Your task to perform on an android device: open chrome privacy settings Image 0: 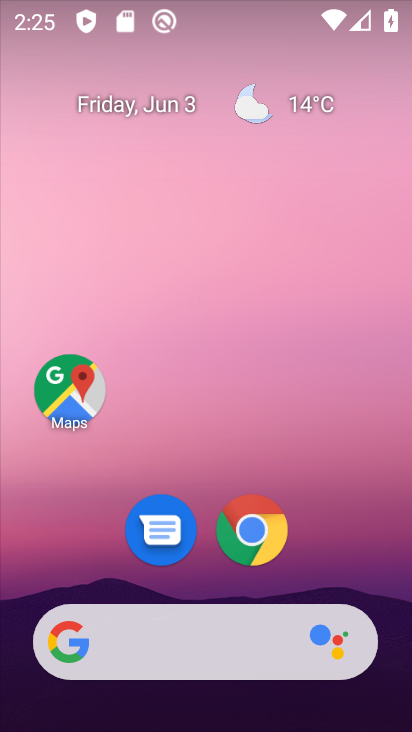
Step 0: click (240, 556)
Your task to perform on an android device: open chrome privacy settings Image 1: 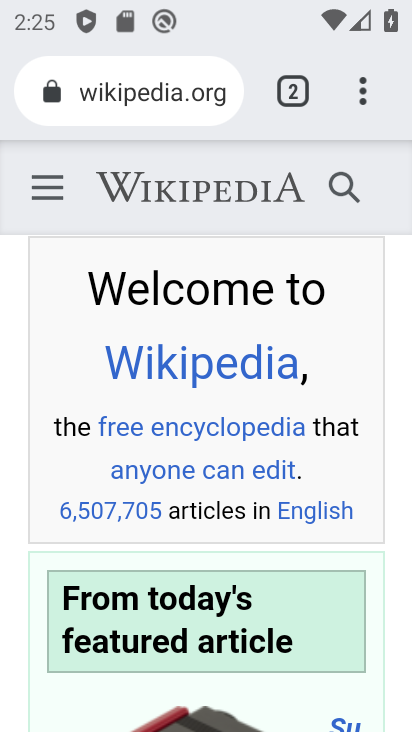
Step 1: drag from (379, 87) to (153, 582)
Your task to perform on an android device: open chrome privacy settings Image 2: 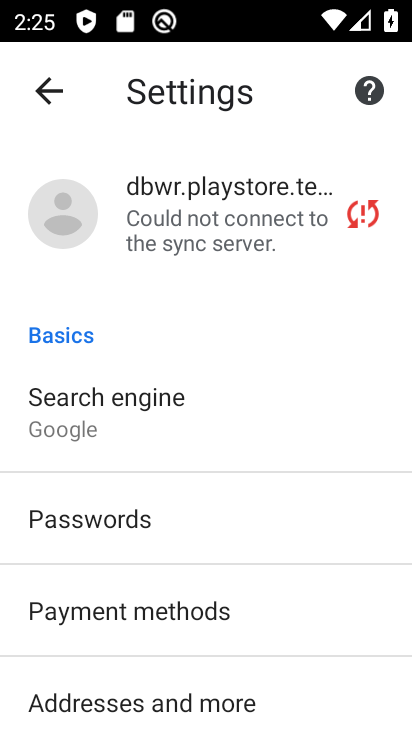
Step 2: drag from (176, 691) to (250, 381)
Your task to perform on an android device: open chrome privacy settings Image 3: 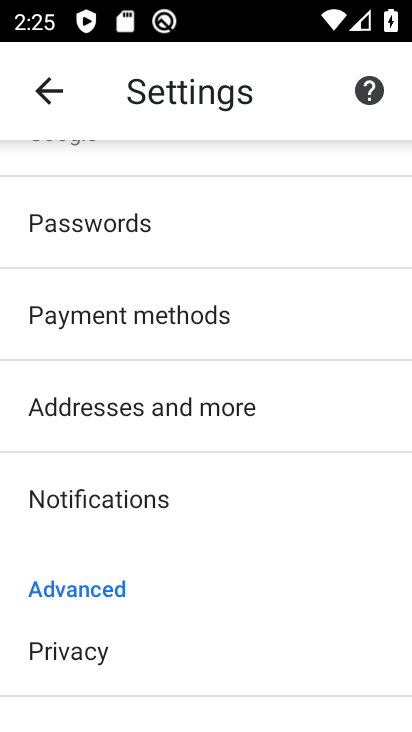
Step 3: click (150, 650)
Your task to perform on an android device: open chrome privacy settings Image 4: 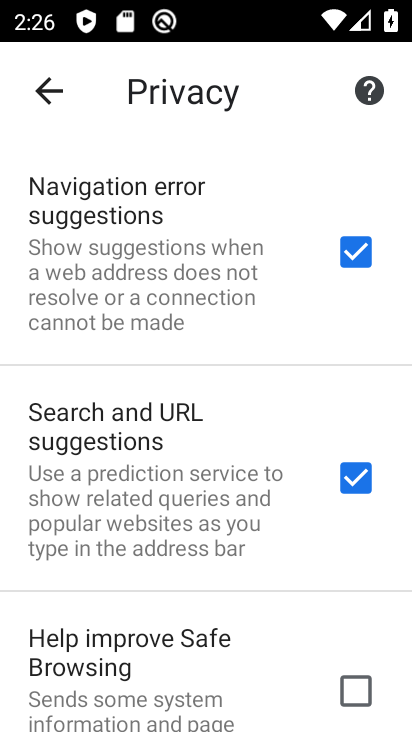
Step 4: task complete